Your task to perform on an android device: View the shopping cart on amazon.com. Search for "beats solo 3" on amazon.com, select the first entry, and add it to the cart. Image 0: 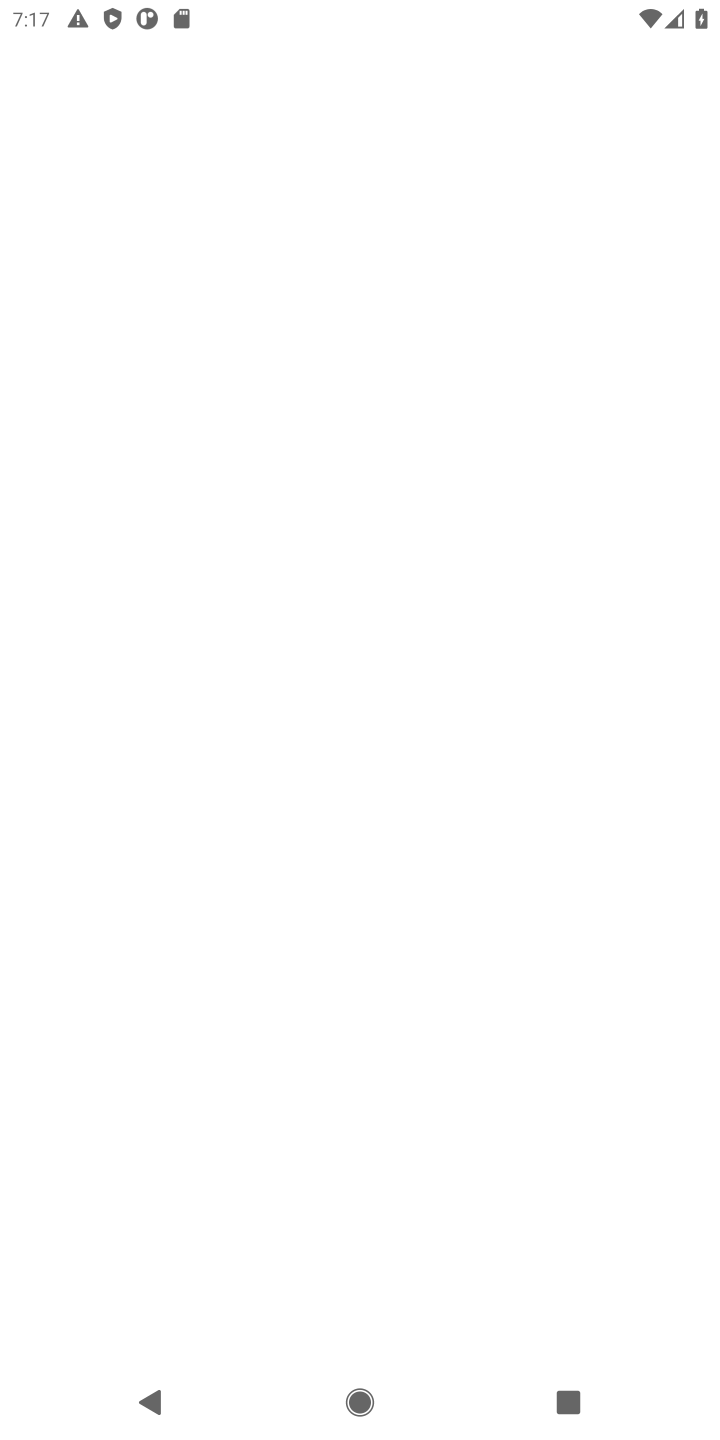
Step 0: click (519, 1127)
Your task to perform on an android device: View the shopping cart on amazon.com. Search for "beats solo 3" on amazon.com, select the first entry, and add it to the cart. Image 1: 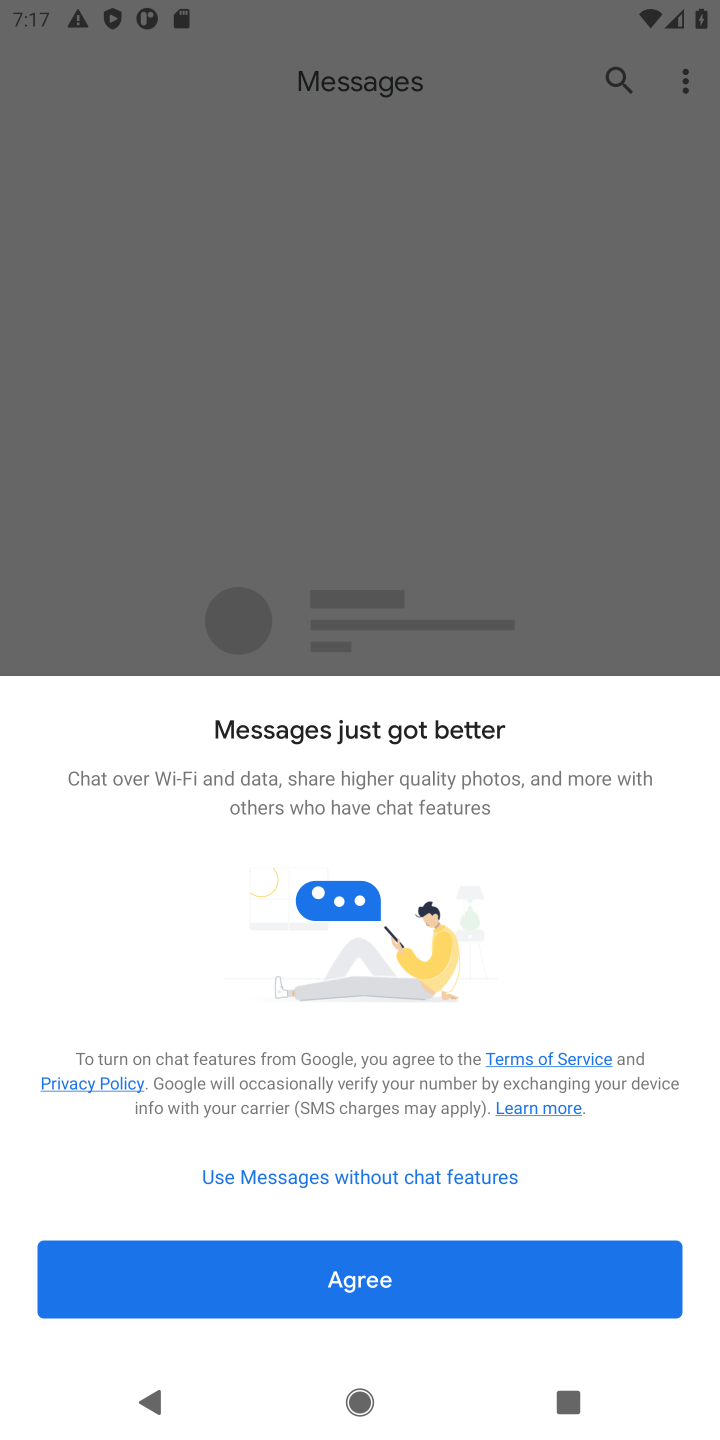
Step 1: press home button
Your task to perform on an android device: View the shopping cart on amazon.com. Search for "beats solo 3" on amazon.com, select the first entry, and add it to the cart. Image 2: 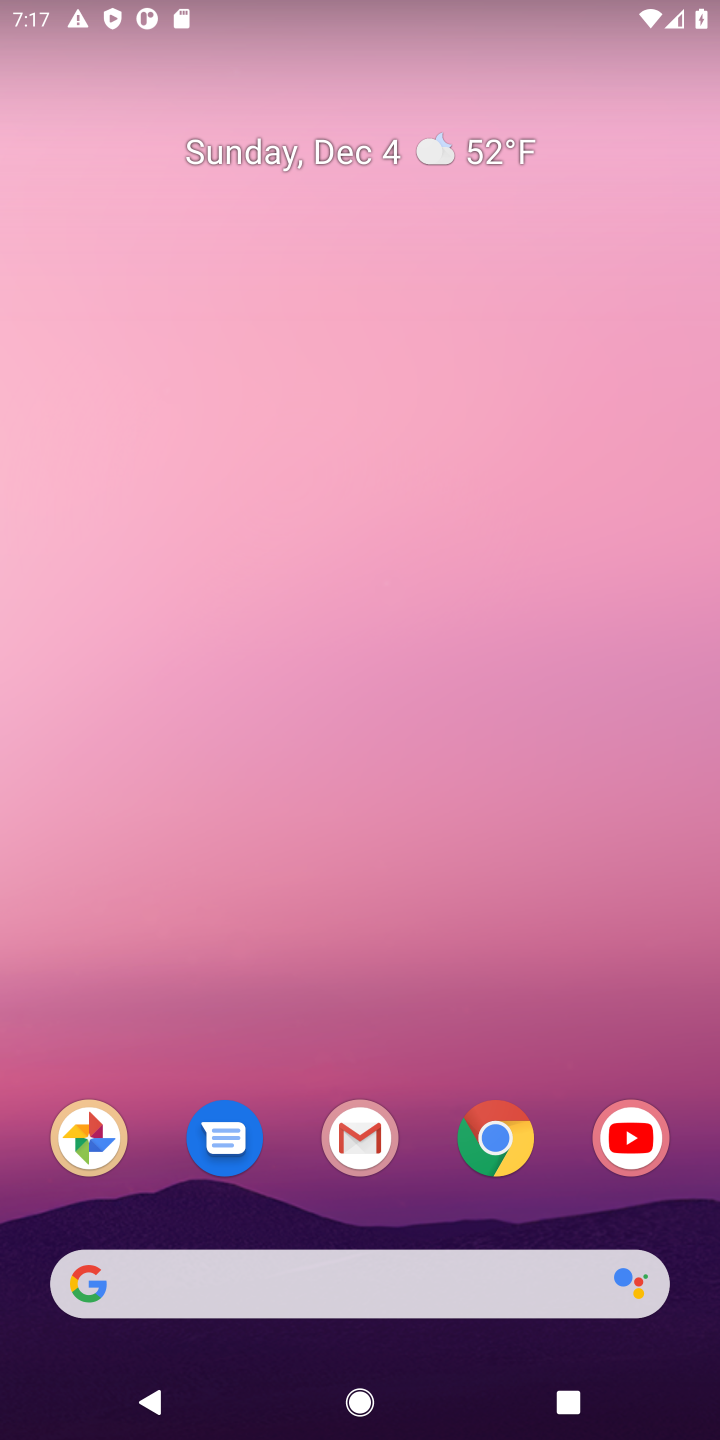
Step 2: click (492, 1129)
Your task to perform on an android device: View the shopping cart on amazon.com. Search for "beats solo 3" on amazon.com, select the first entry, and add it to the cart. Image 3: 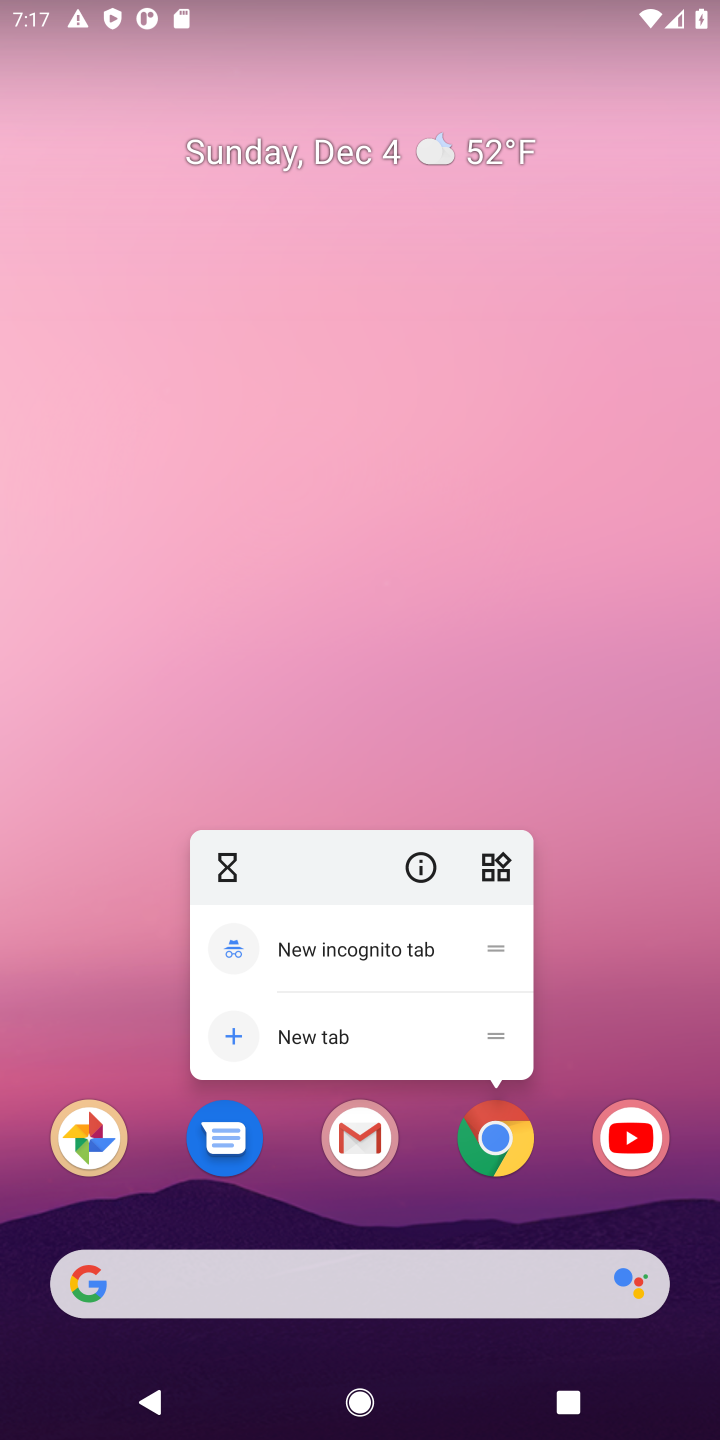
Step 3: click (516, 1131)
Your task to perform on an android device: View the shopping cart on amazon.com. Search for "beats solo 3" on amazon.com, select the first entry, and add it to the cart. Image 4: 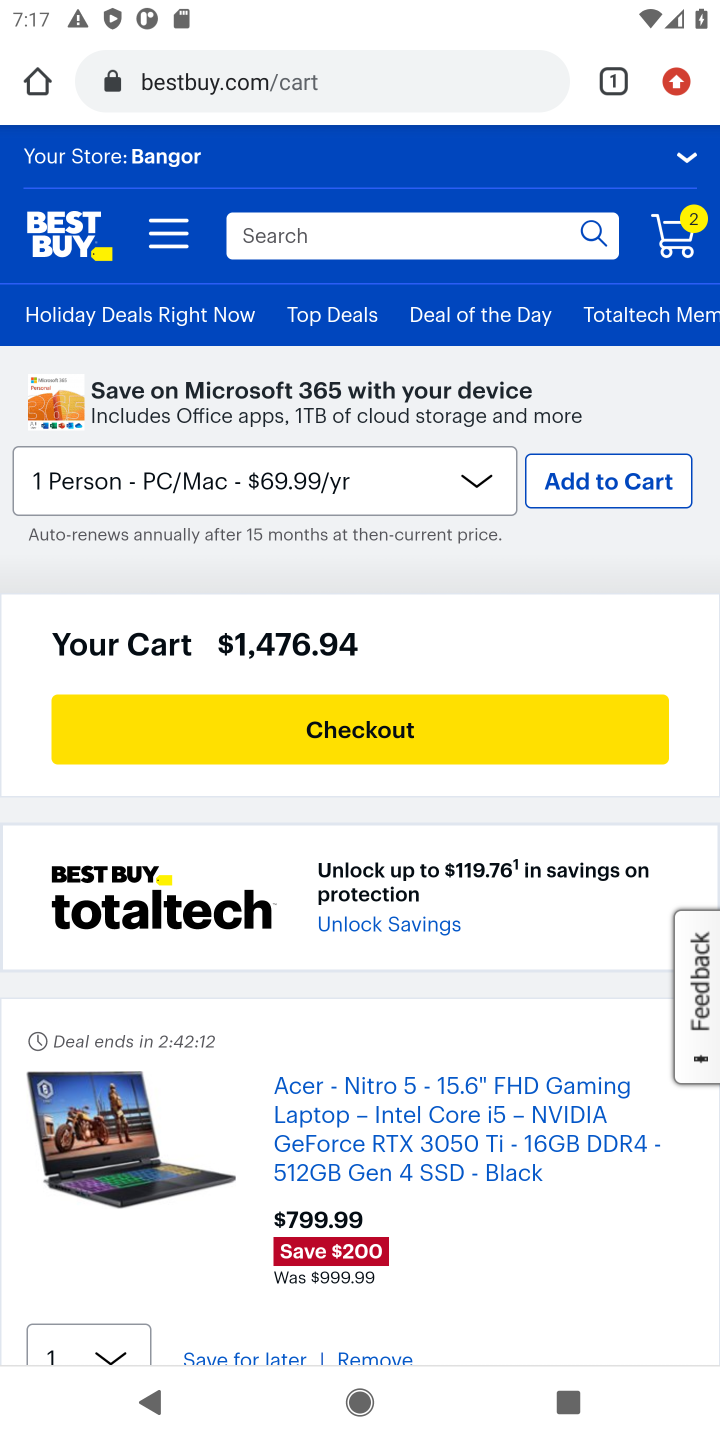
Step 4: click (468, 87)
Your task to perform on an android device: View the shopping cart on amazon.com. Search for "beats solo 3" on amazon.com, select the first entry, and add it to the cart. Image 5: 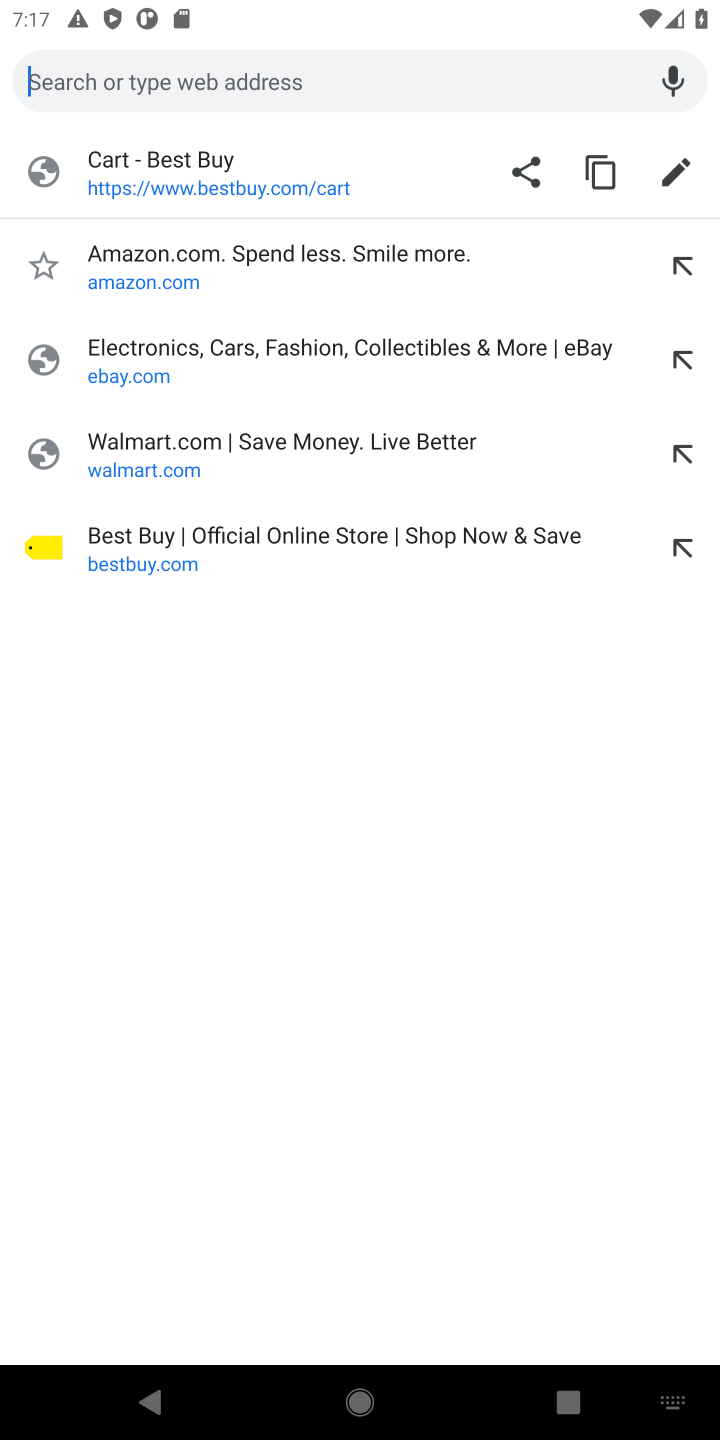
Step 5: click (217, 247)
Your task to perform on an android device: View the shopping cart on amazon.com. Search for "beats solo 3" on amazon.com, select the first entry, and add it to the cart. Image 6: 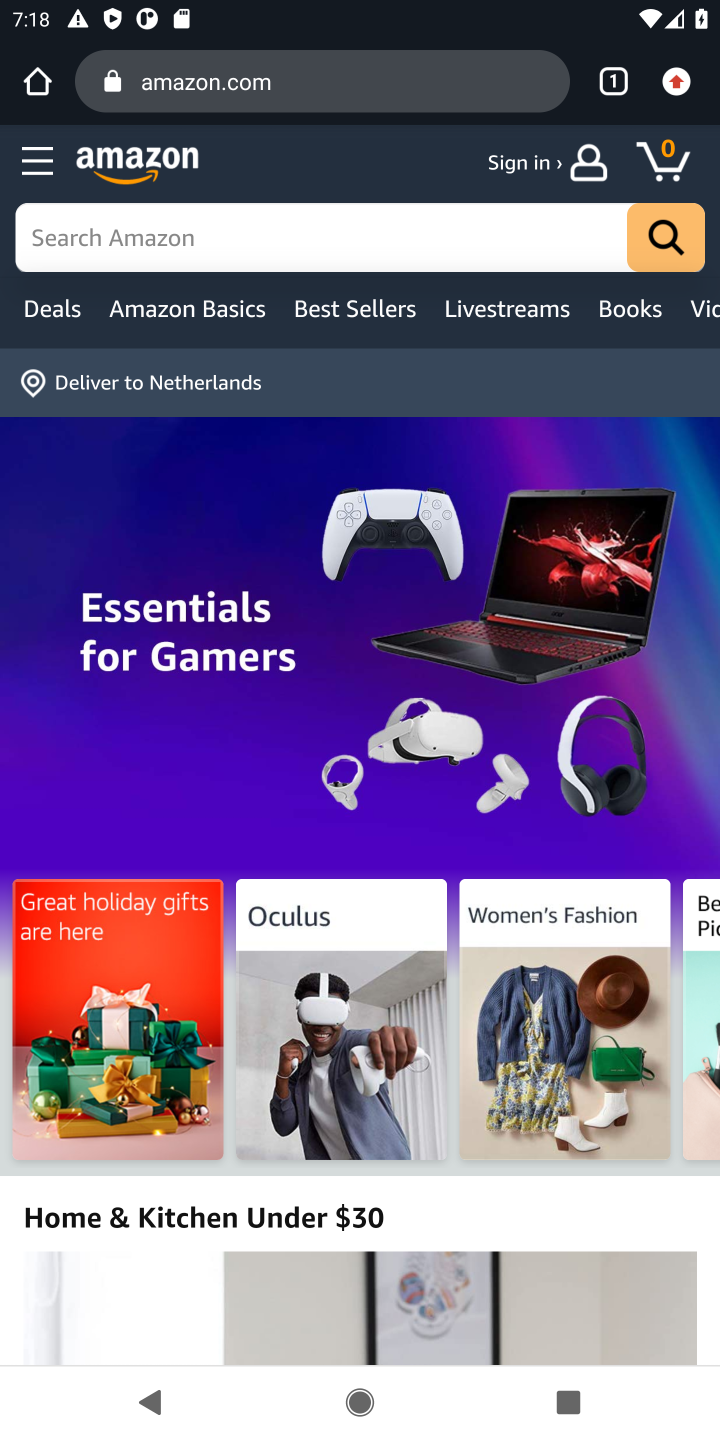
Step 6: click (558, 224)
Your task to perform on an android device: View the shopping cart on amazon.com. Search for "beats solo 3" on amazon.com, select the first entry, and add it to the cart. Image 7: 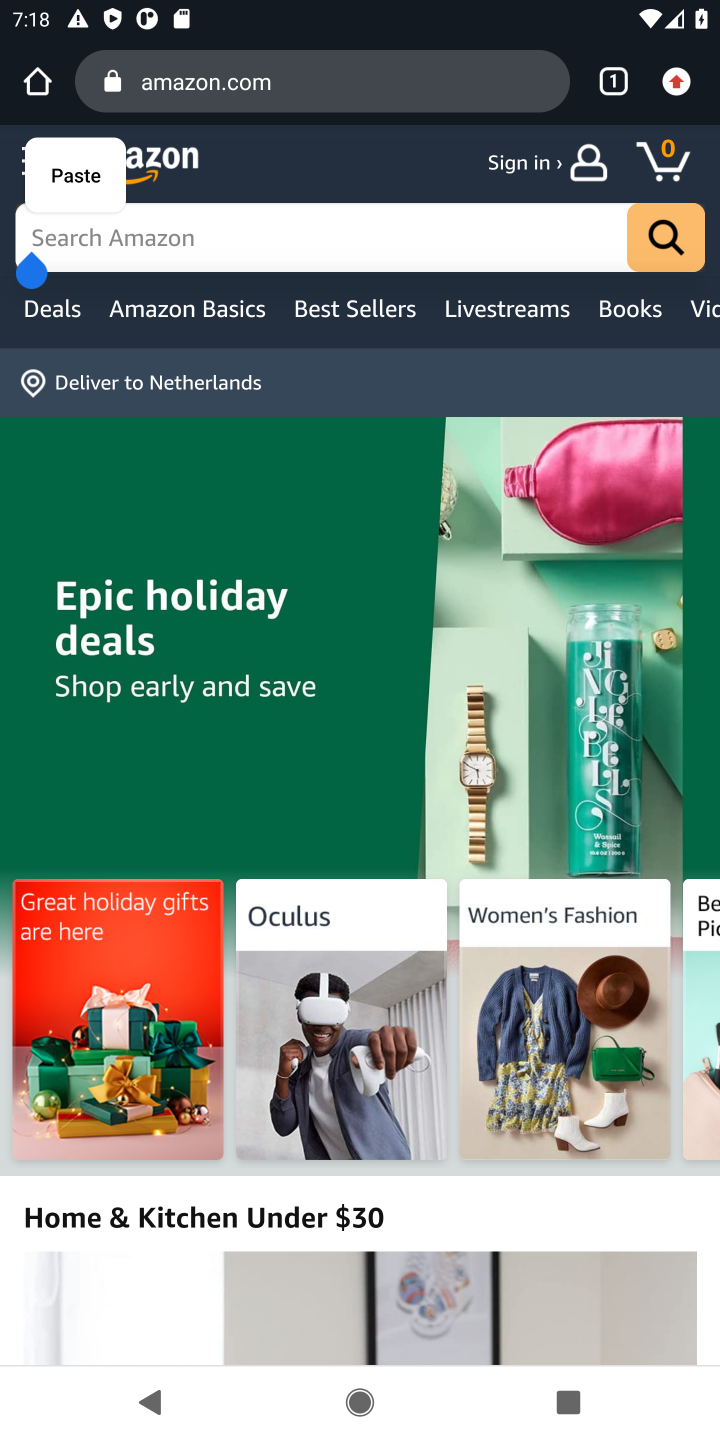
Step 7: type "beats solo 3"
Your task to perform on an android device: View the shopping cart on amazon.com. Search for "beats solo 3" on amazon.com, select the first entry, and add it to the cart. Image 8: 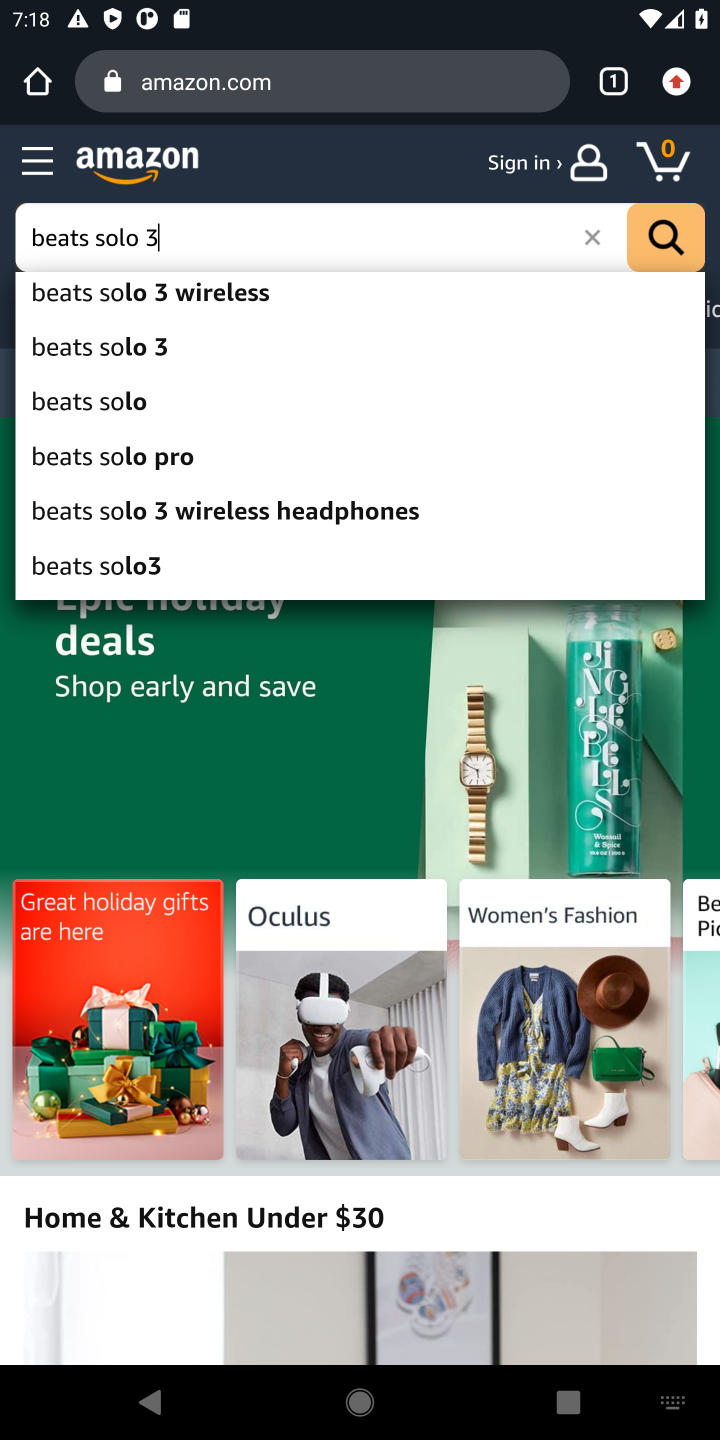
Step 8: press enter
Your task to perform on an android device: View the shopping cart on amazon.com. Search for "beats solo 3" on amazon.com, select the first entry, and add it to the cart. Image 9: 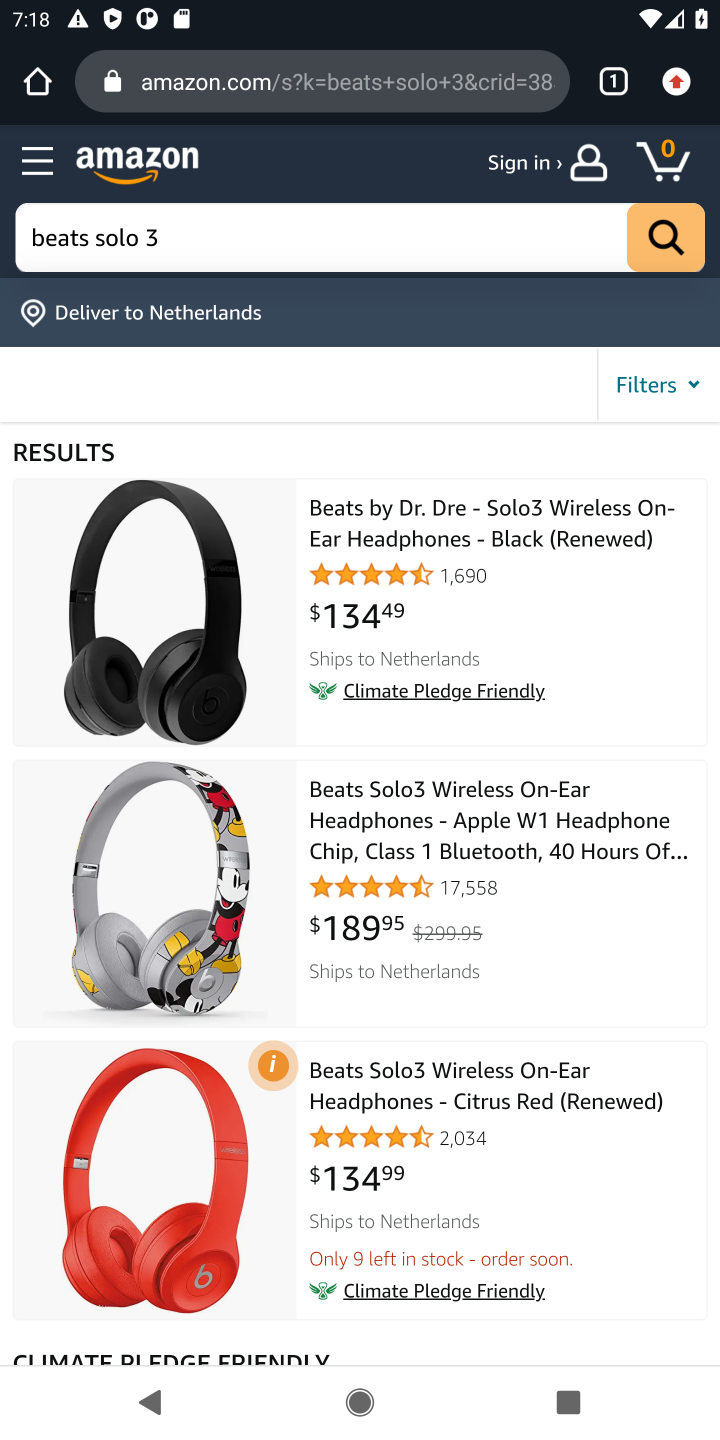
Step 9: click (157, 852)
Your task to perform on an android device: View the shopping cart on amazon.com. Search for "beats solo 3" on amazon.com, select the first entry, and add it to the cart. Image 10: 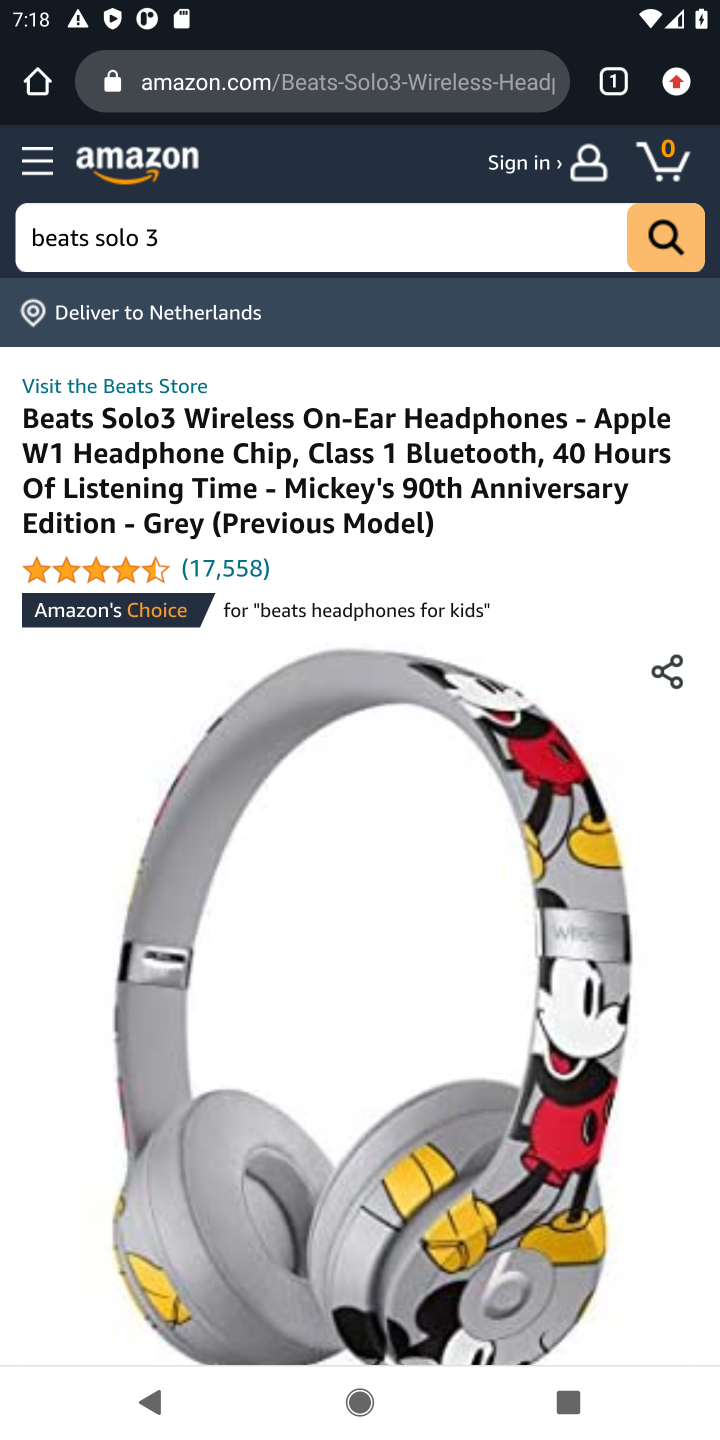
Step 10: drag from (575, 876) to (720, 210)
Your task to perform on an android device: View the shopping cart on amazon.com. Search for "beats solo 3" on amazon.com, select the first entry, and add it to the cart. Image 11: 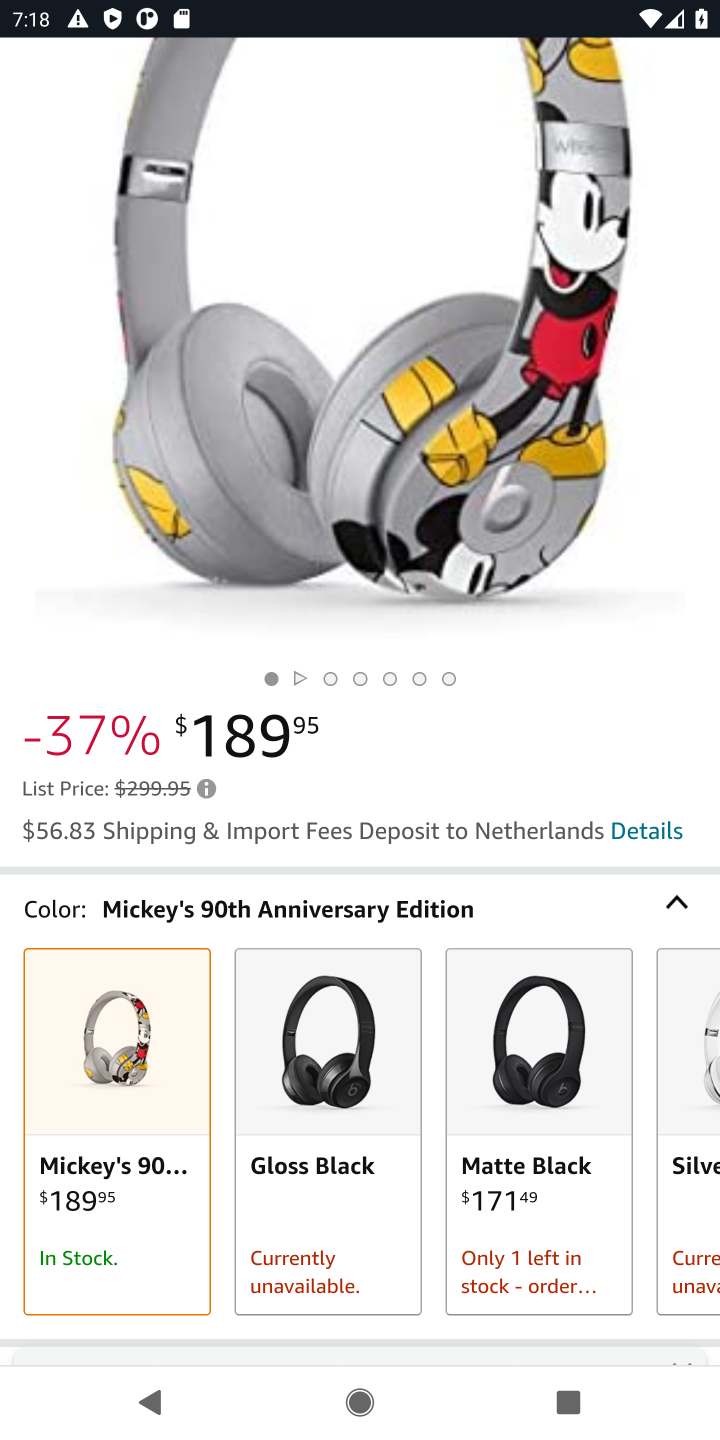
Step 11: drag from (604, 398) to (718, 45)
Your task to perform on an android device: View the shopping cart on amazon.com. Search for "beats solo 3" on amazon.com, select the first entry, and add it to the cart. Image 12: 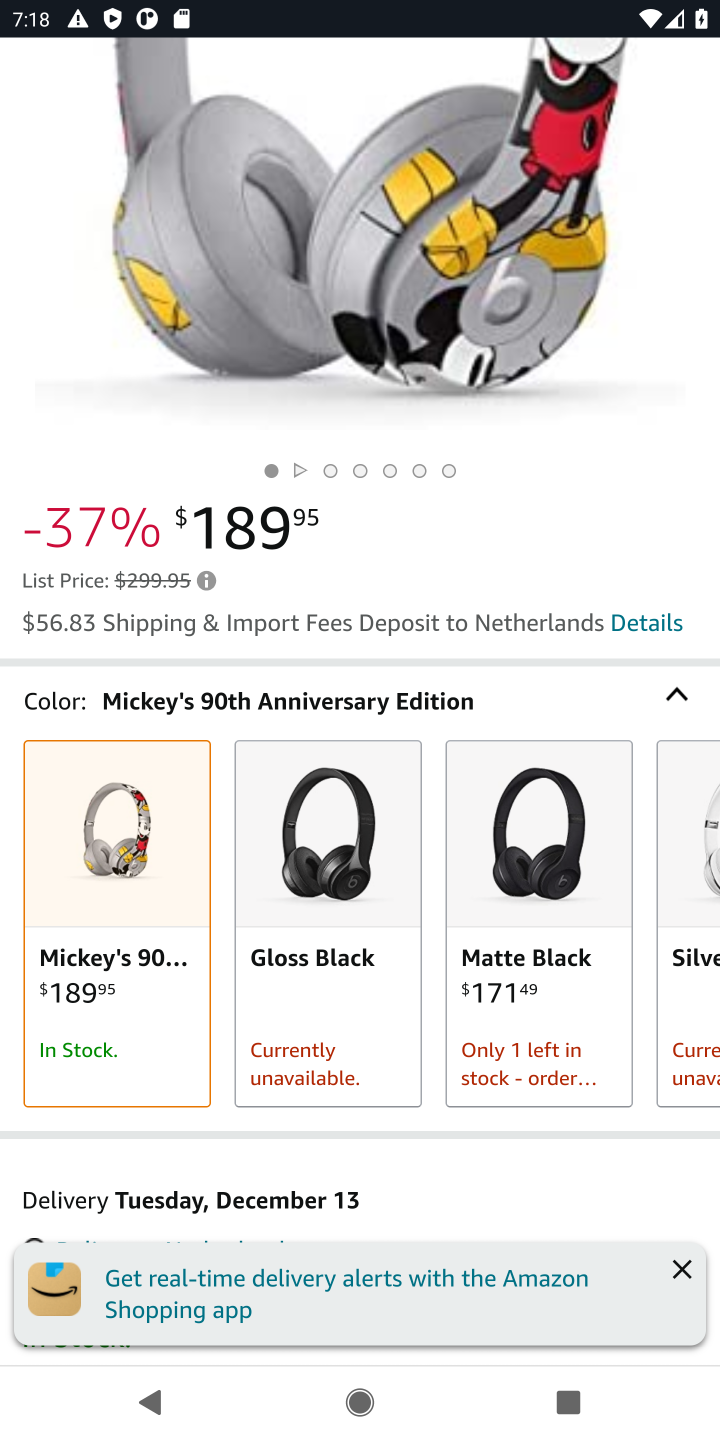
Step 12: drag from (433, 866) to (534, 216)
Your task to perform on an android device: View the shopping cart on amazon.com. Search for "beats solo 3" on amazon.com, select the first entry, and add it to the cart. Image 13: 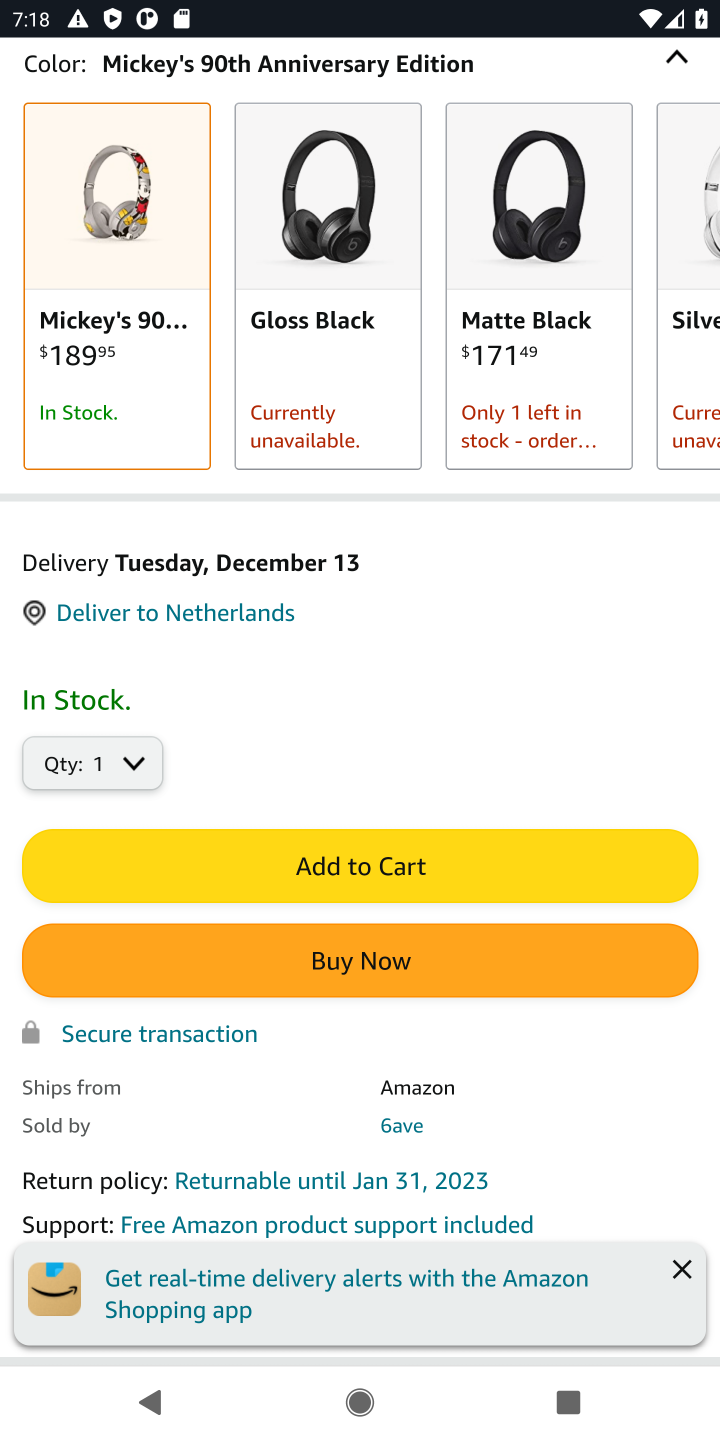
Step 13: click (355, 856)
Your task to perform on an android device: View the shopping cart on amazon.com. Search for "beats solo 3" on amazon.com, select the first entry, and add it to the cart. Image 14: 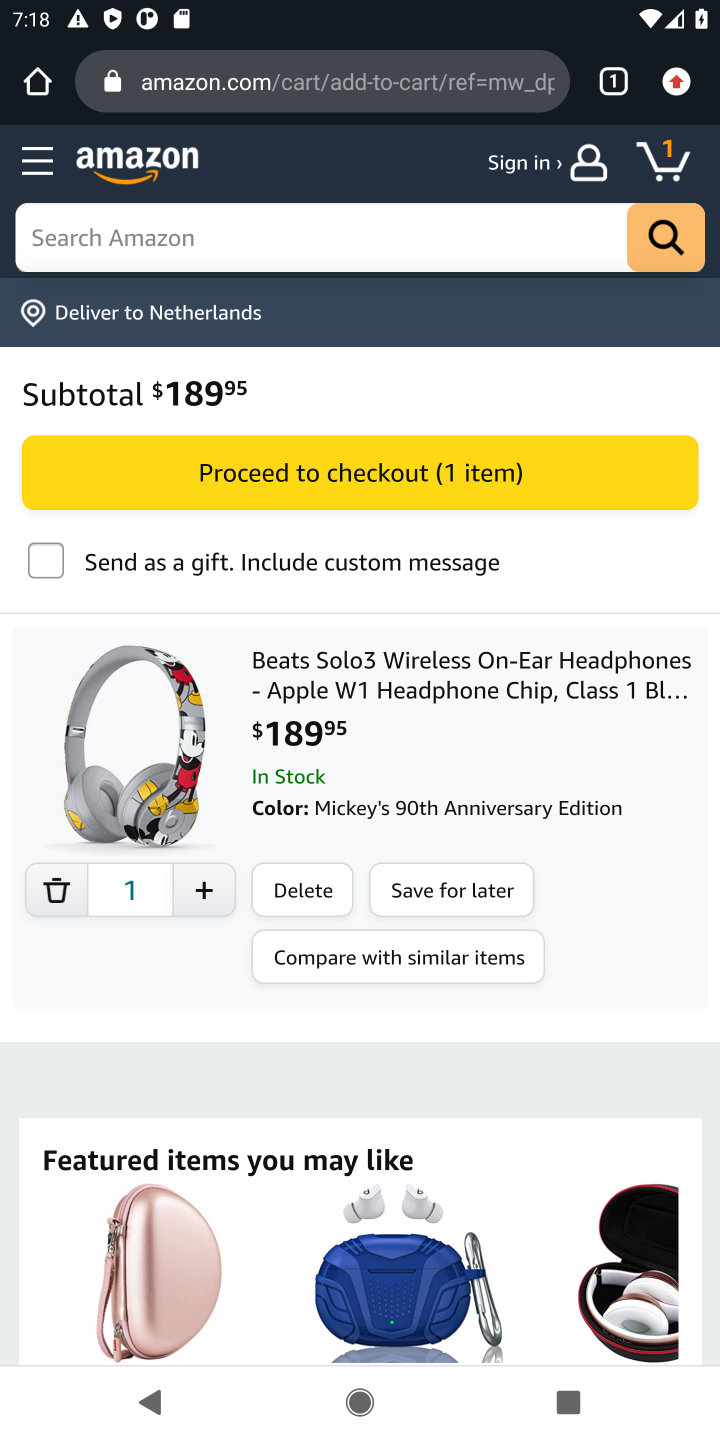
Step 14: task complete